Your task to perform on an android device: Search for acer nitro on bestbuy, select the first entry, add it to the cart, then select checkout. Image 0: 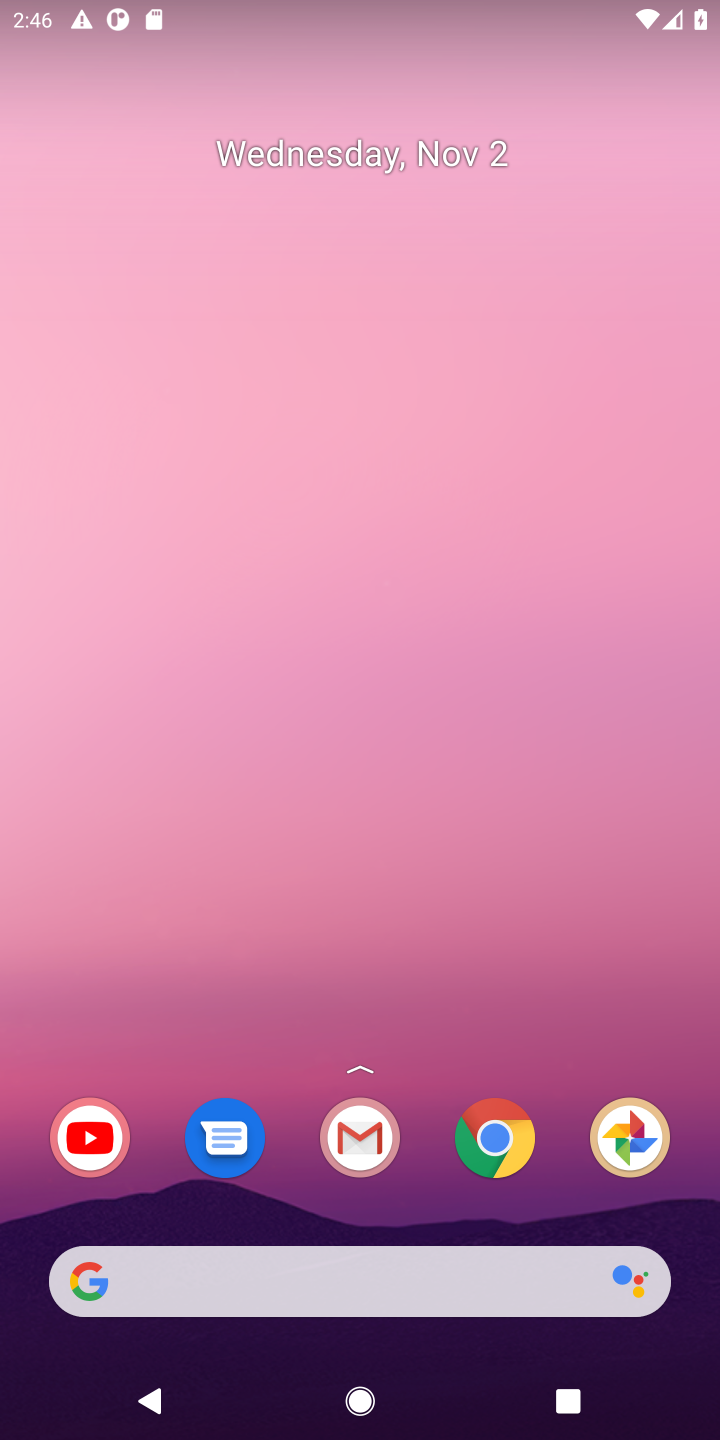
Step 0: press home button
Your task to perform on an android device: Search for acer nitro on bestbuy, select the first entry, add it to the cart, then select checkout. Image 1: 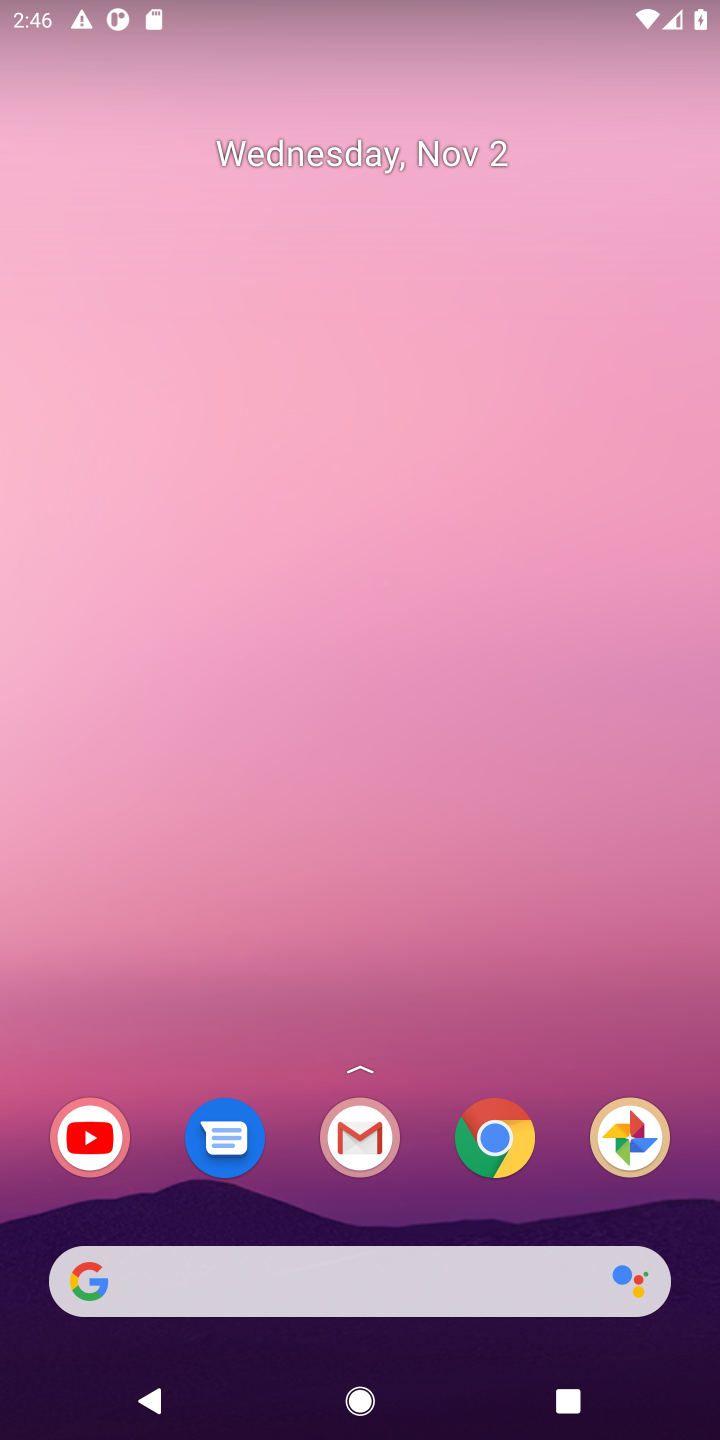
Step 1: click (124, 1274)
Your task to perform on an android device: Search for acer nitro on bestbuy, select the first entry, add it to the cart, then select checkout. Image 2: 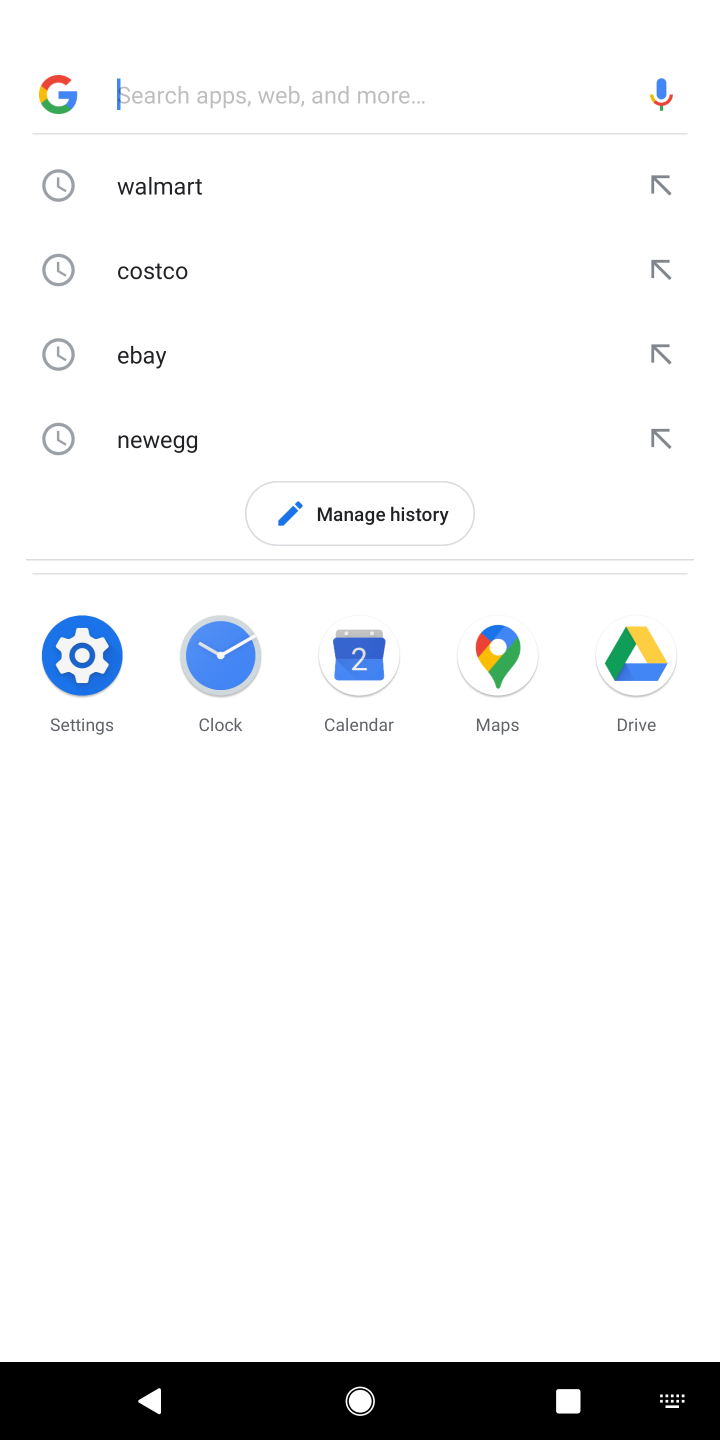
Step 2: type "bestbuy"
Your task to perform on an android device: Search for acer nitro on bestbuy, select the first entry, add it to the cart, then select checkout. Image 3: 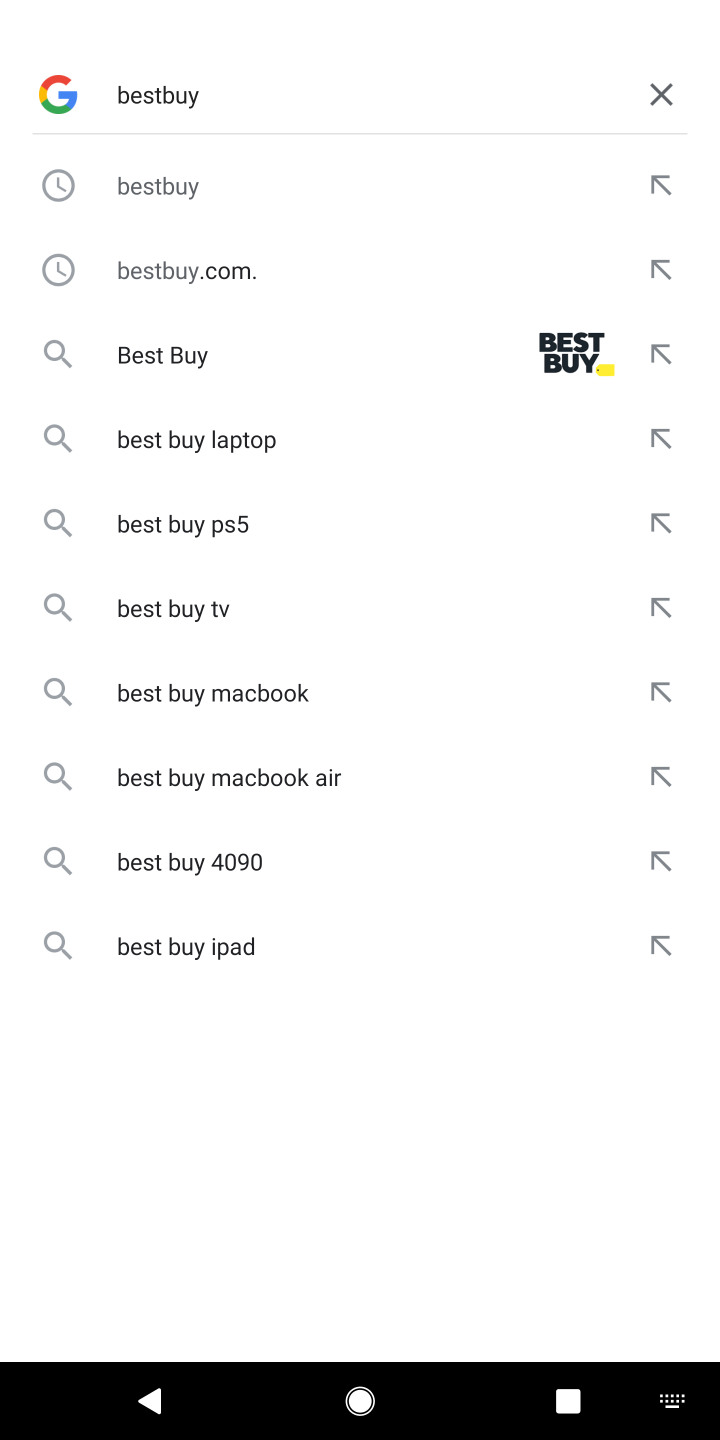
Step 3: press enter
Your task to perform on an android device: Search for acer nitro on bestbuy, select the first entry, add it to the cart, then select checkout. Image 4: 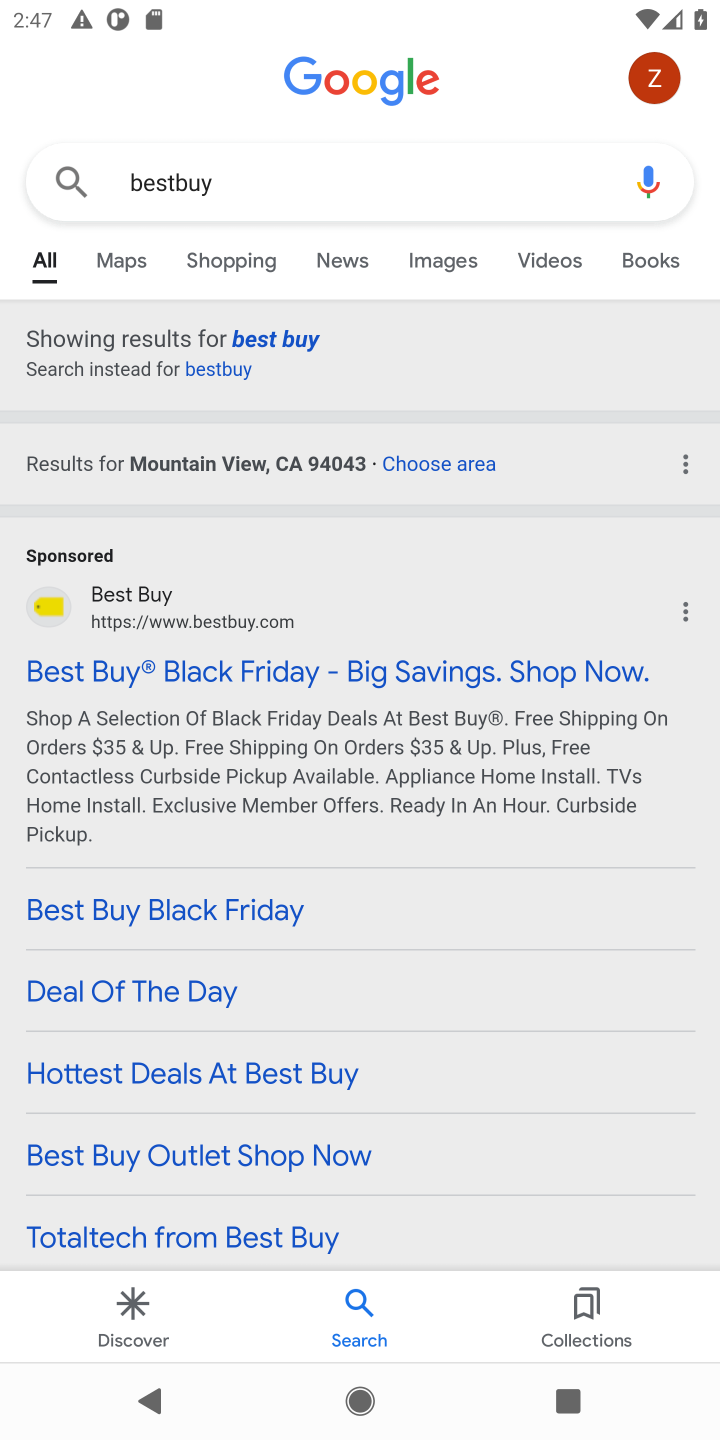
Step 4: click (189, 673)
Your task to perform on an android device: Search for acer nitro on bestbuy, select the first entry, add it to the cart, then select checkout. Image 5: 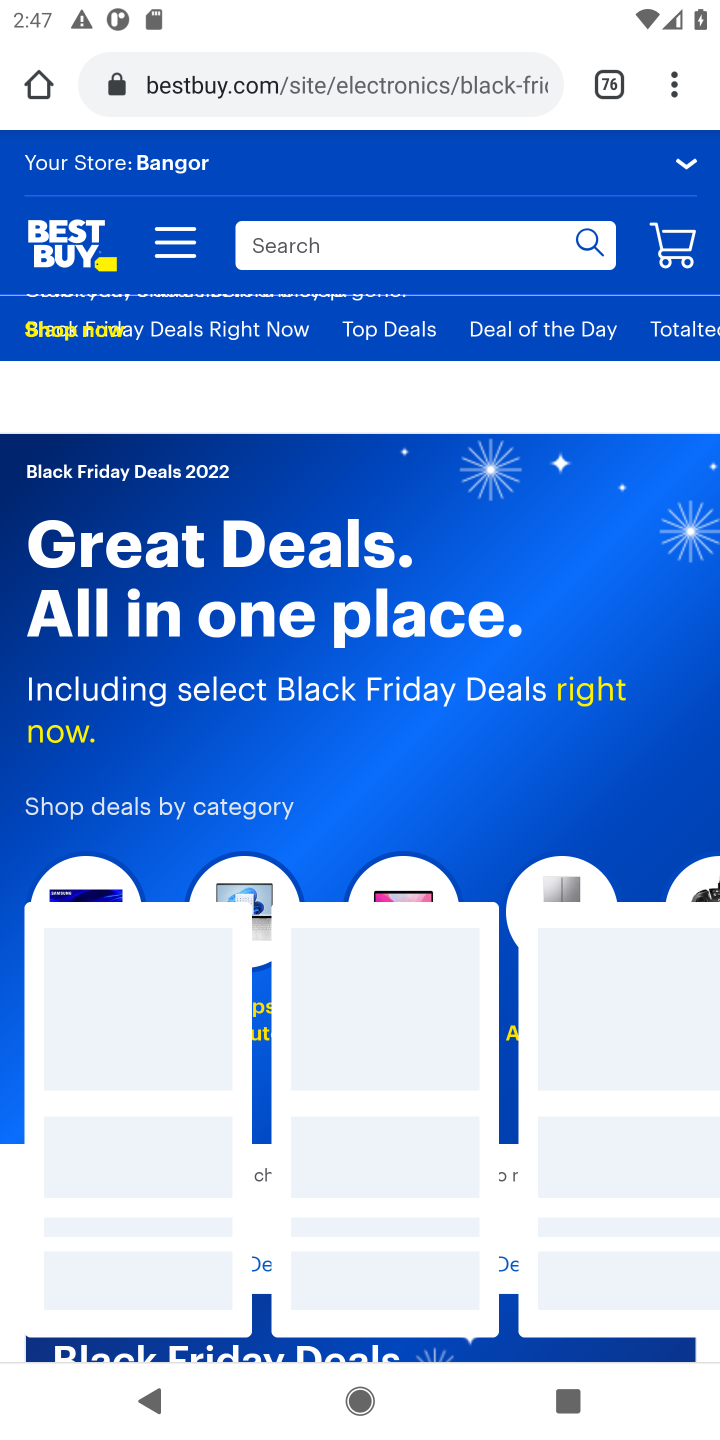
Step 5: click (319, 238)
Your task to perform on an android device: Search for acer nitro on bestbuy, select the first entry, add it to the cart, then select checkout. Image 6: 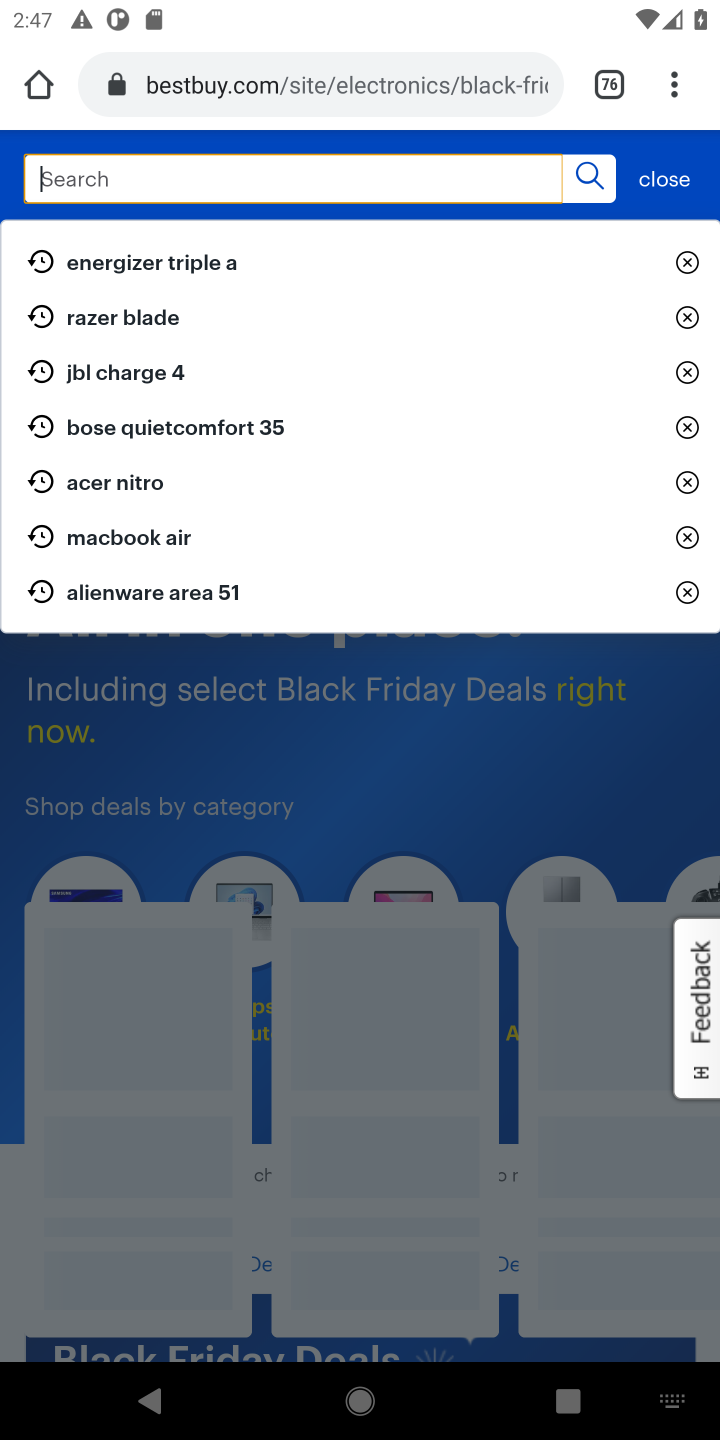
Step 6: press enter
Your task to perform on an android device: Search for acer nitro on bestbuy, select the first entry, add it to the cart, then select checkout. Image 7: 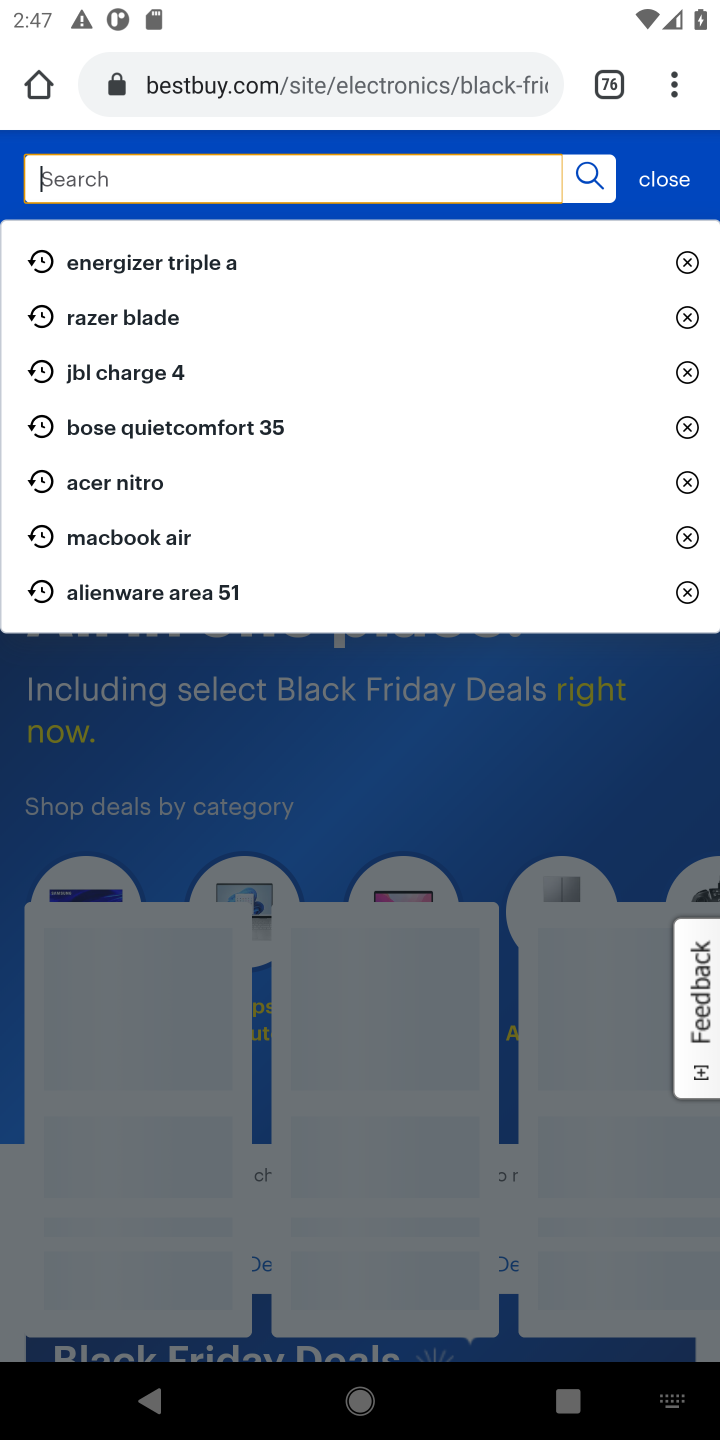
Step 7: type "acer nitro"
Your task to perform on an android device: Search for acer nitro on bestbuy, select the first entry, add it to the cart, then select checkout. Image 8: 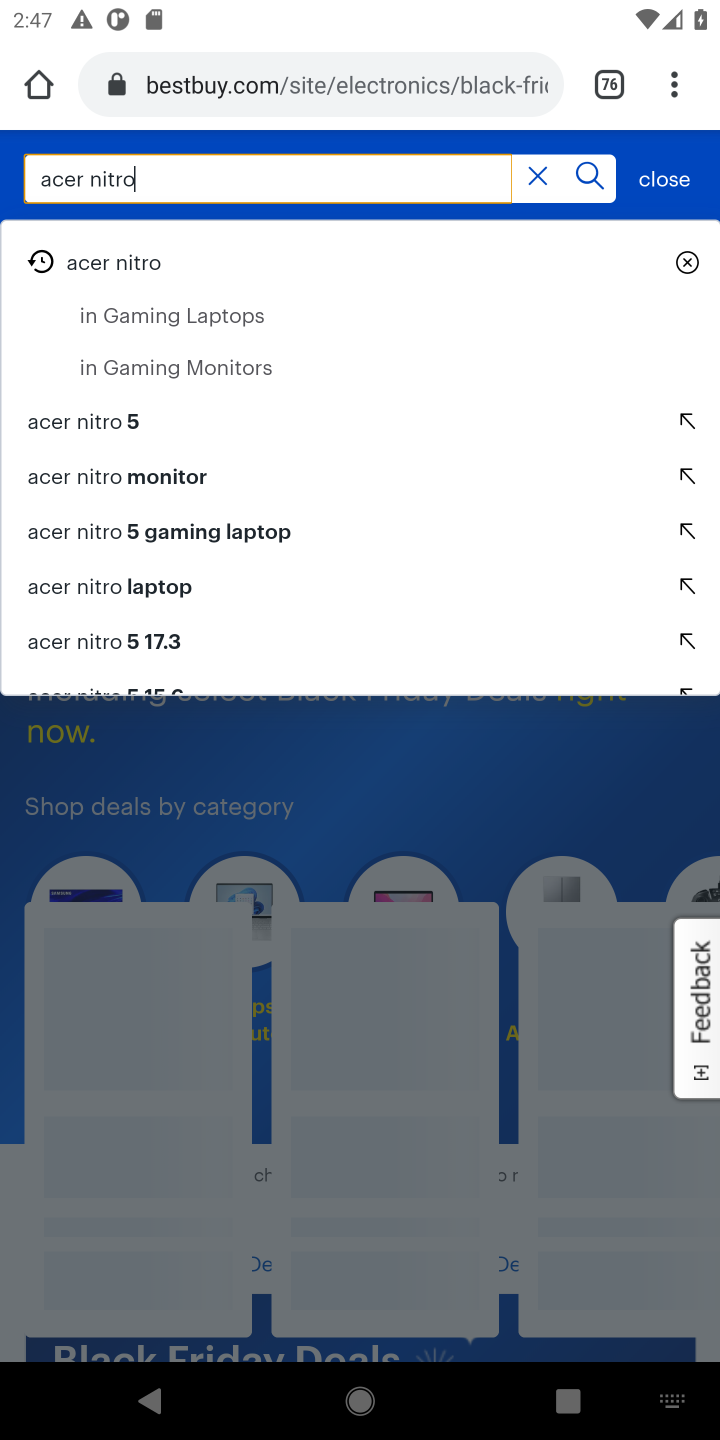
Step 8: press enter
Your task to perform on an android device: Search for acer nitro on bestbuy, select the first entry, add it to the cart, then select checkout. Image 9: 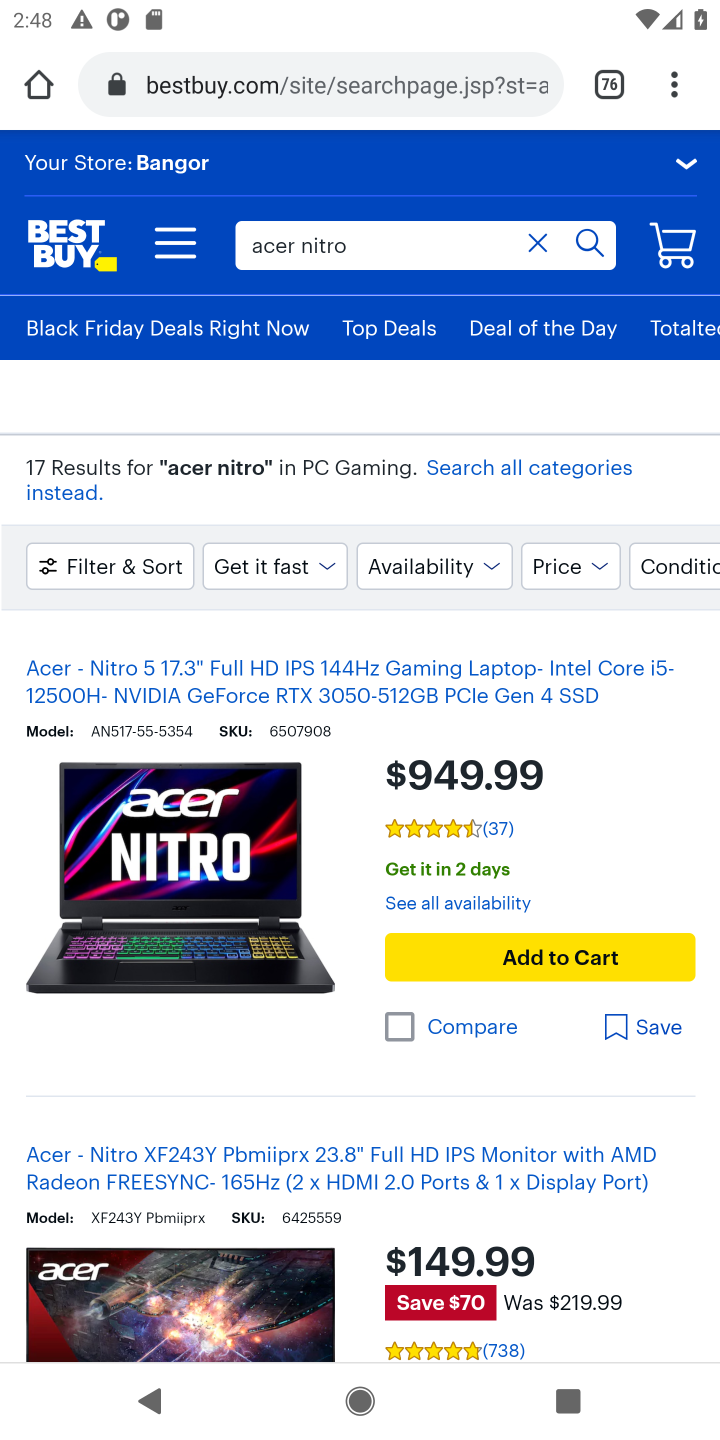
Step 9: click (509, 963)
Your task to perform on an android device: Search for acer nitro on bestbuy, select the first entry, add it to the cart, then select checkout. Image 10: 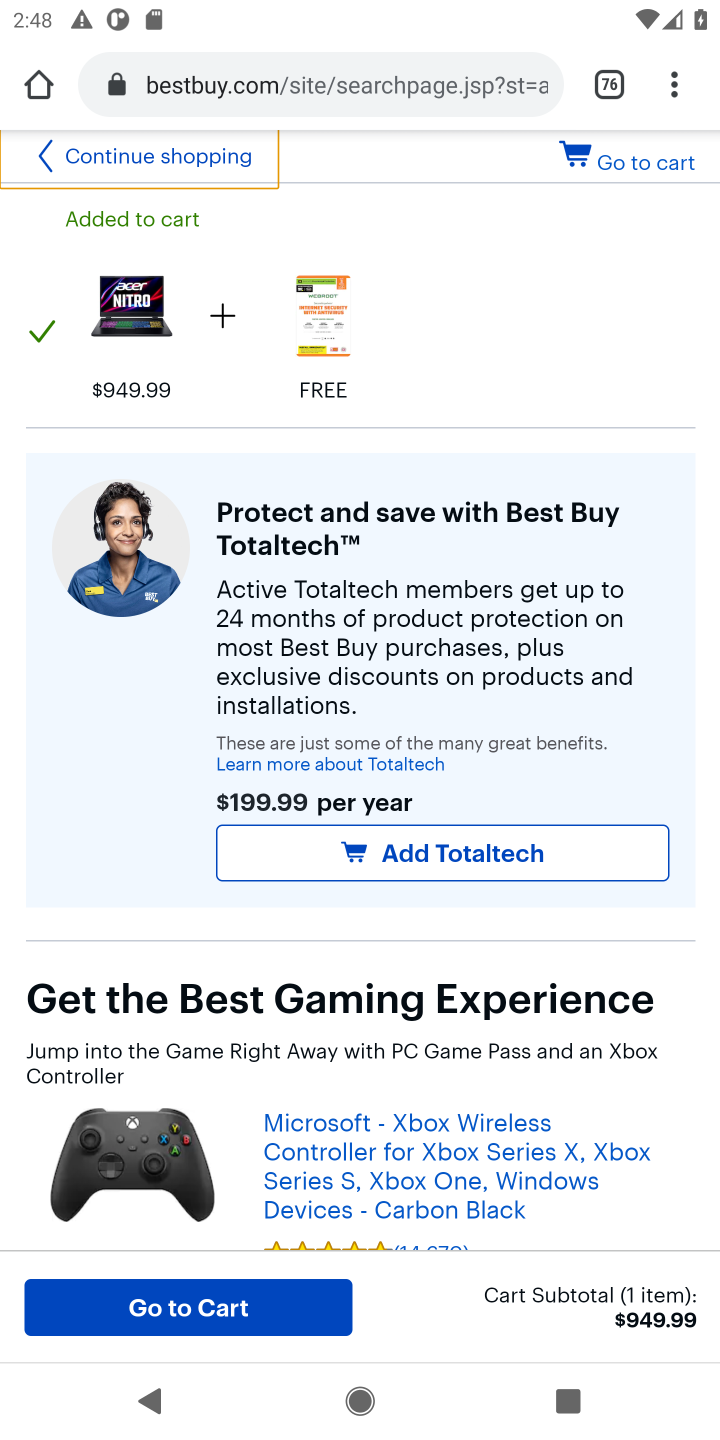
Step 10: click (149, 1317)
Your task to perform on an android device: Search for acer nitro on bestbuy, select the first entry, add it to the cart, then select checkout. Image 11: 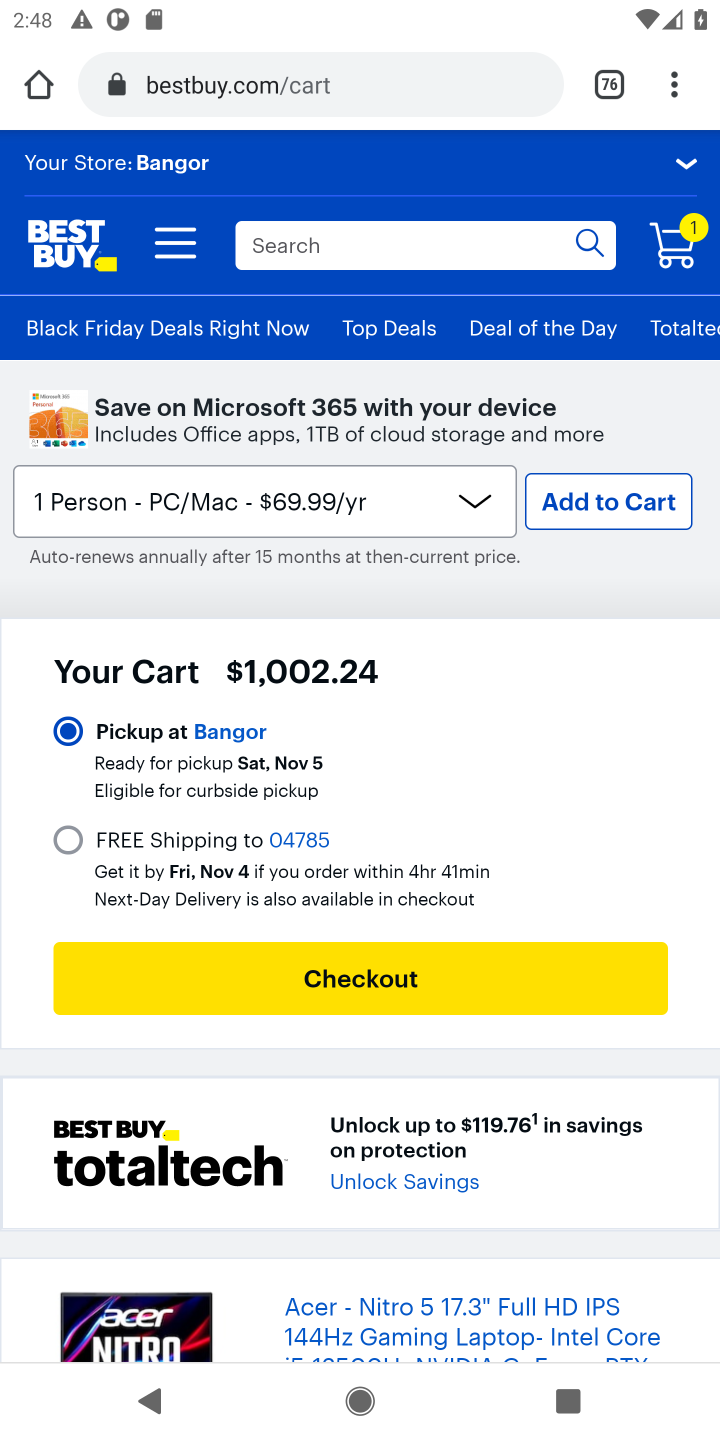
Step 11: click (393, 982)
Your task to perform on an android device: Search for acer nitro on bestbuy, select the first entry, add it to the cart, then select checkout. Image 12: 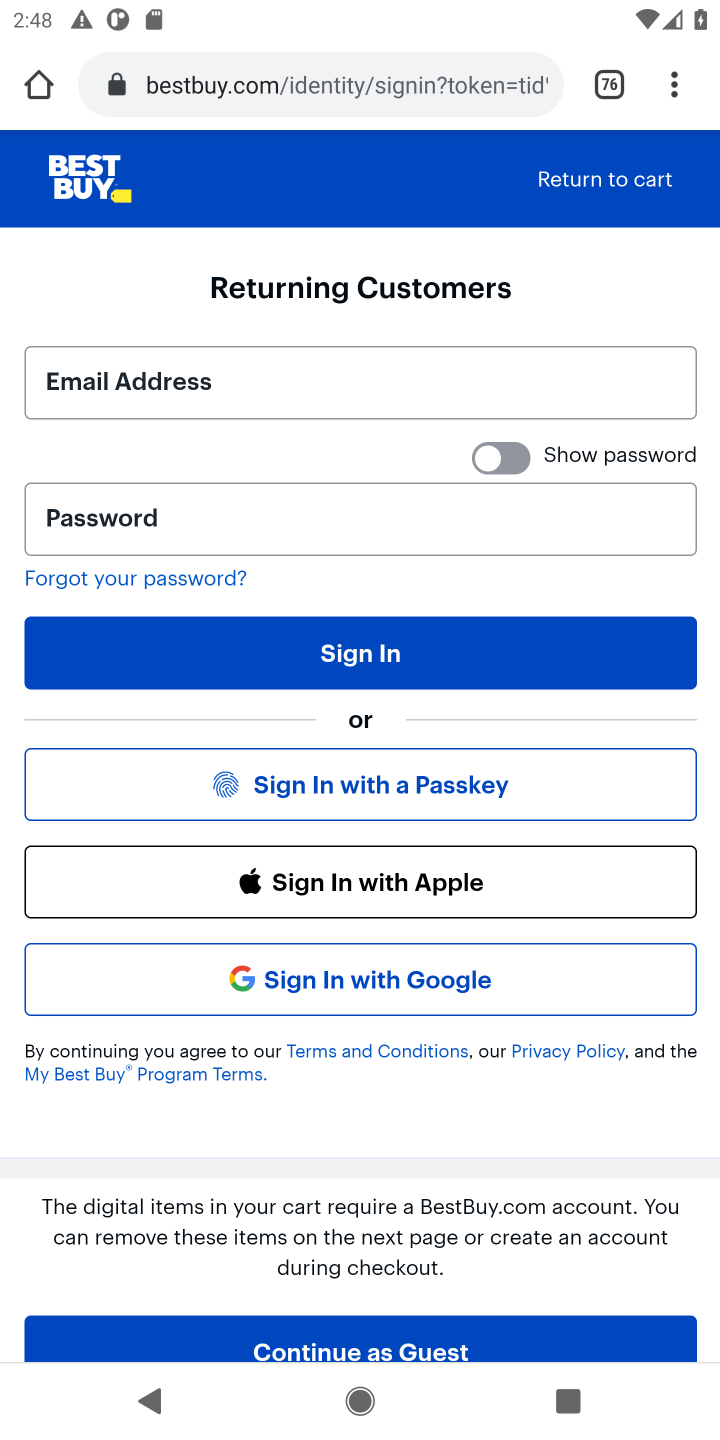
Step 12: task complete